Your task to perform on an android device: Show me the alarms in the clock app Image 0: 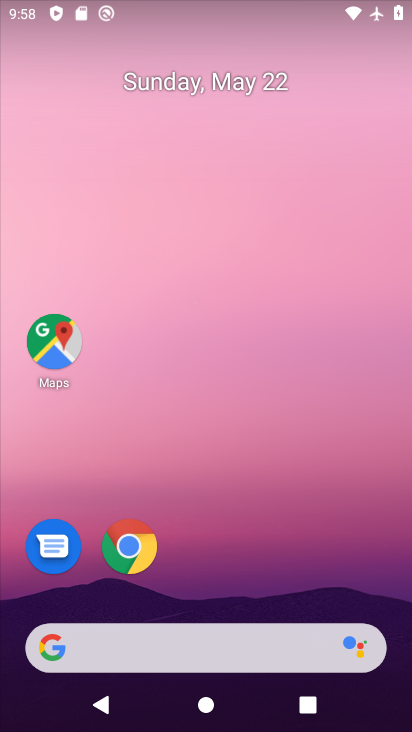
Step 0: drag from (255, 452) to (195, 2)
Your task to perform on an android device: Show me the alarms in the clock app Image 1: 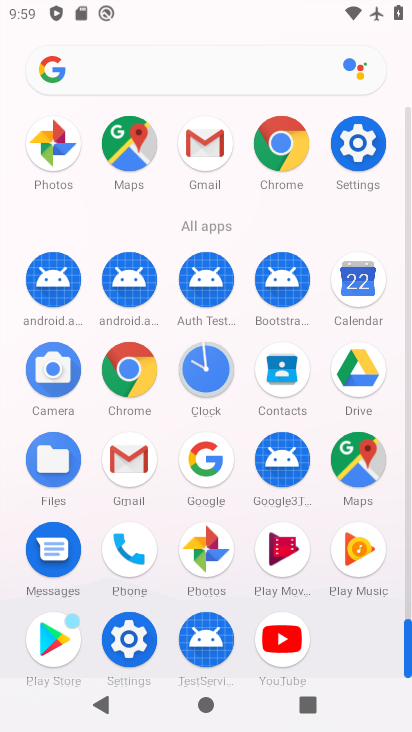
Step 1: drag from (33, 532) to (33, 339)
Your task to perform on an android device: Show me the alarms in the clock app Image 2: 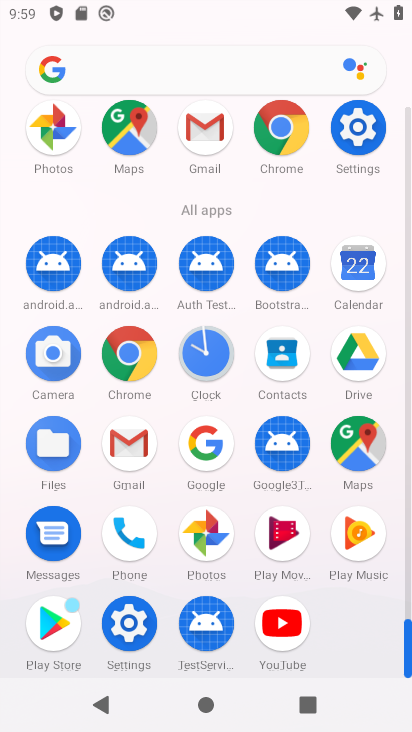
Step 2: click (199, 348)
Your task to perform on an android device: Show me the alarms in the clock app Image 3: 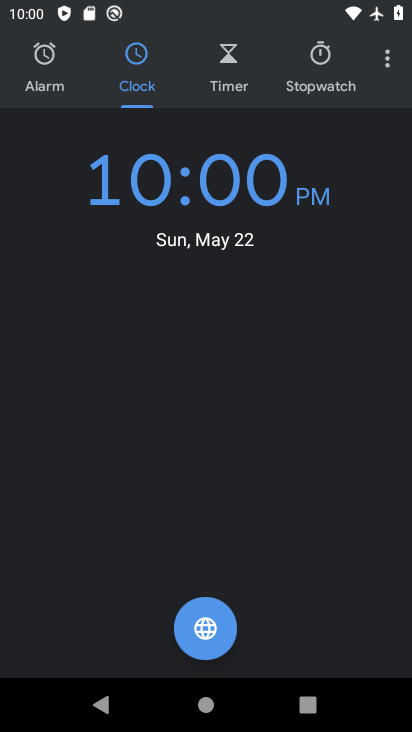
Step 3: click (53, 55)
Your task to perform on an android device: Show me the alarms in the clock app Image 4: 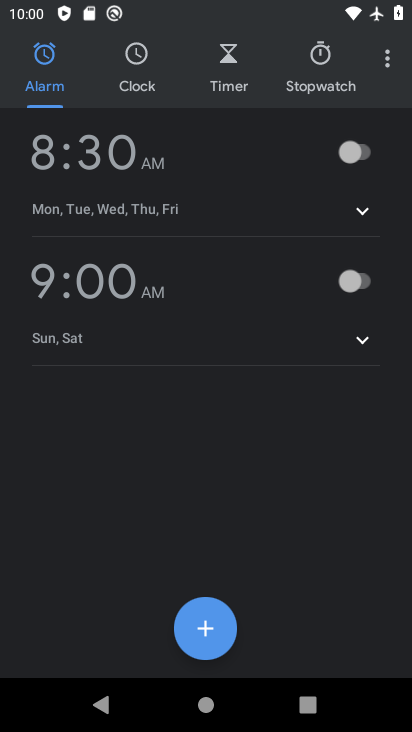
Step 4: task complete